Your task to perform on an android device: Search for logitech g pro on walmart, select the first entry, add it to the cart, then select checkout. Image 0: 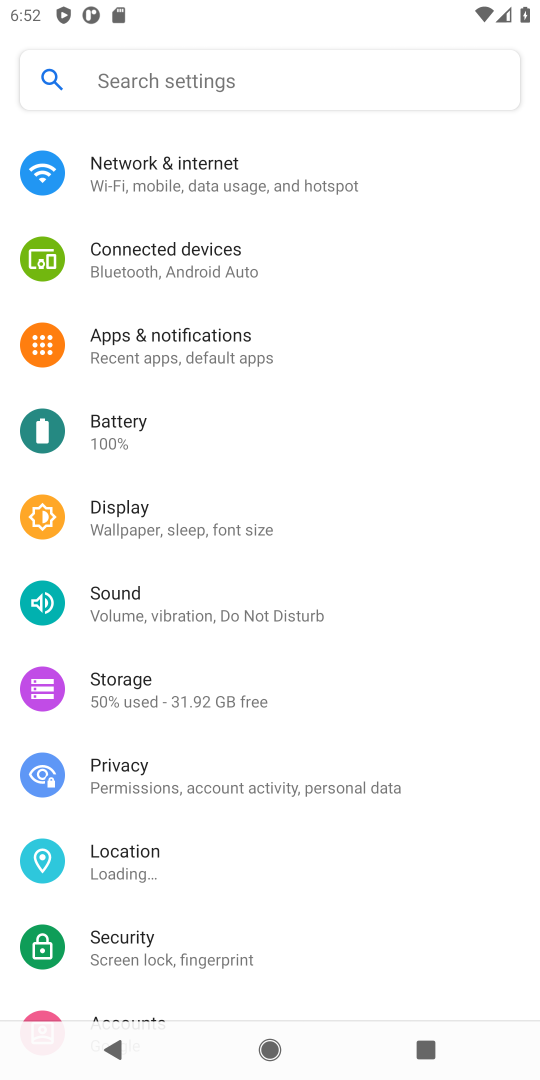
Step 0: press home button
Your task to perform on an android device: Search for logitech g pro on walmart, select the first entry, add it to the cart, then select checkout. Image 1: 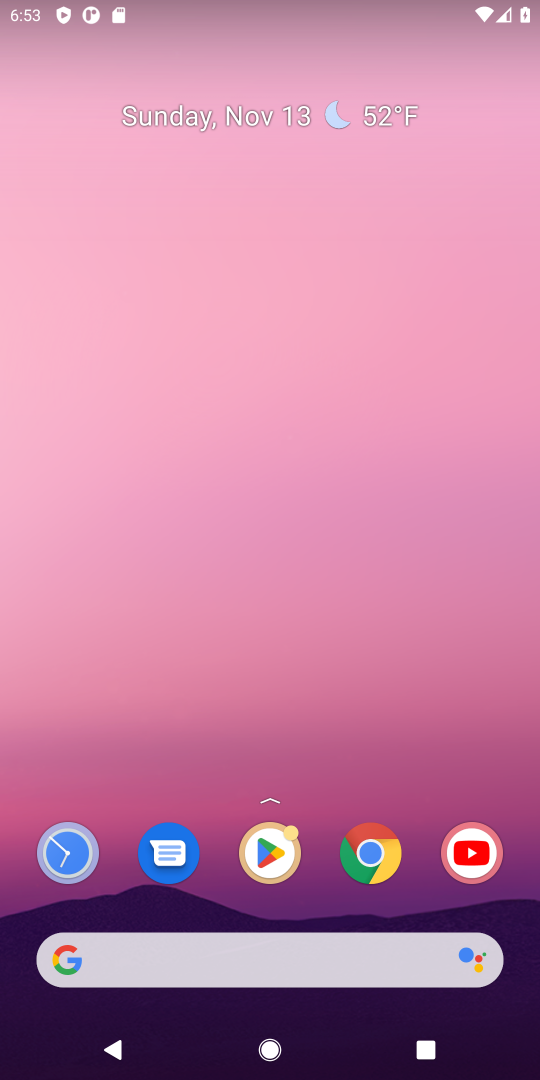
Step 1: click (103, 957)
Your task to perform on an android device: Search for logitech g pro on walmart, select the first entry, add it to the cart, then select checkout. Image 2: 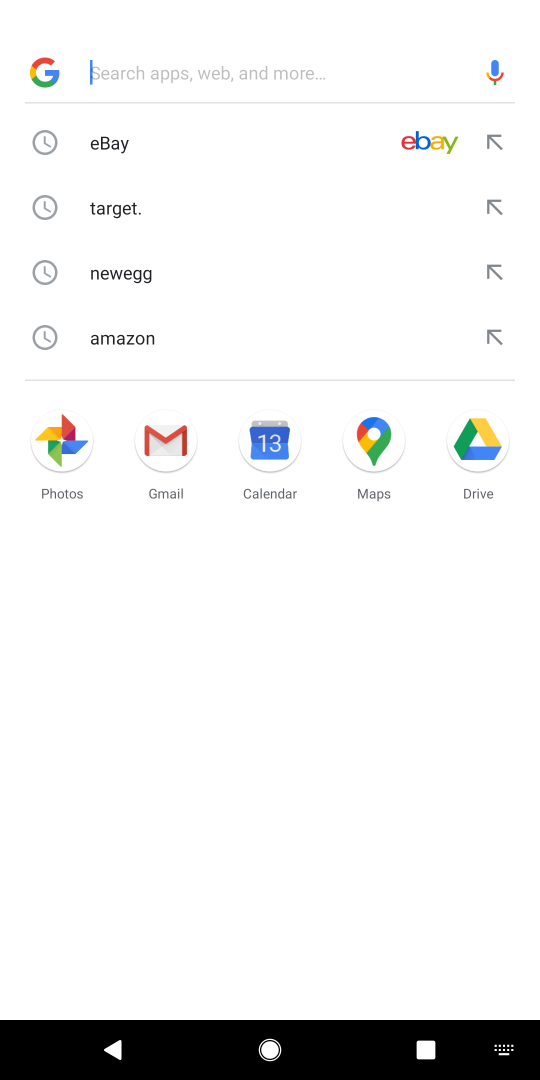
Step 2: type "walmart"
Your task to perform on an android device: Search for logitech g pro on walmart, select the first entry, add it to the cart, then select checkout. Image 3: 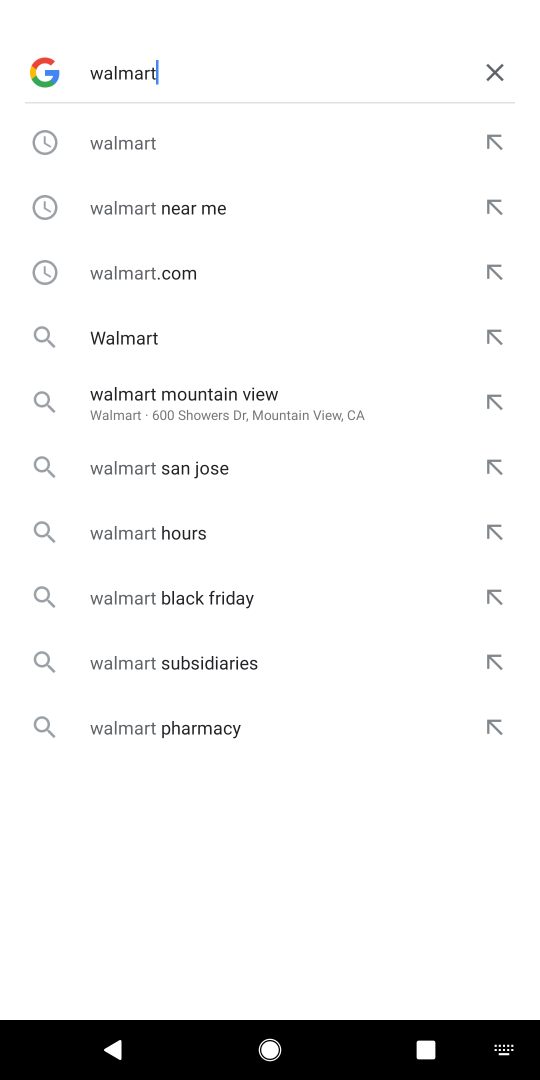
Step 3: press enter
Your task to perform on an android device: Search for logitech g pro on walmart, select the first entry, add it to the cart, then select checkout. Image 4: 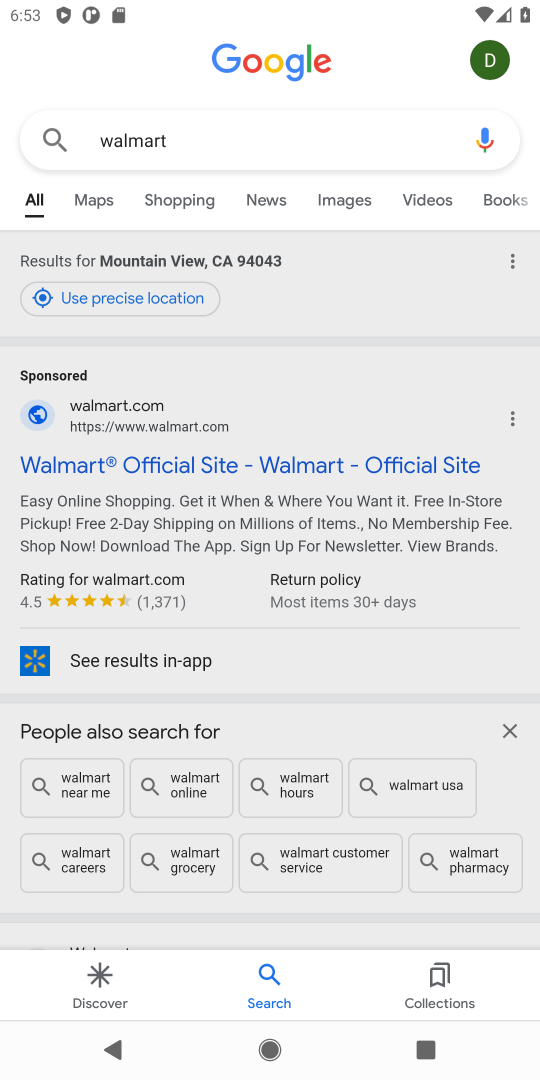
Step 4: click (154, 460)
Your task to perform on an android device: Search for logitech g pro on walmart, select the first entry, add it to the cart, then select checkout. Image 5: 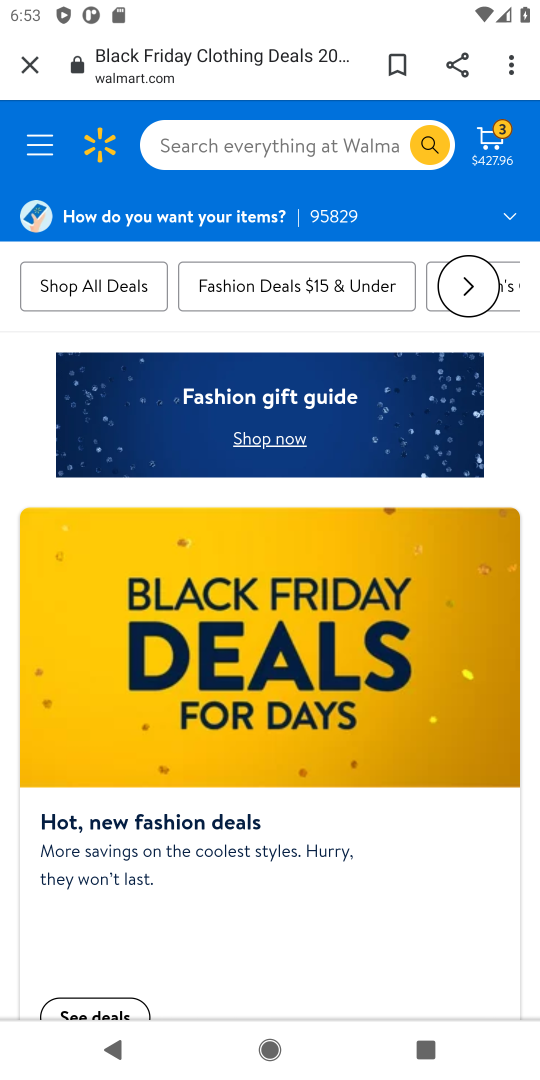
Step 5: click (186, 145)
Your task to perform on an android device: Search for logitech g pro on walmart, select the first entry, add it to the cart, then select checkout. Image 6: 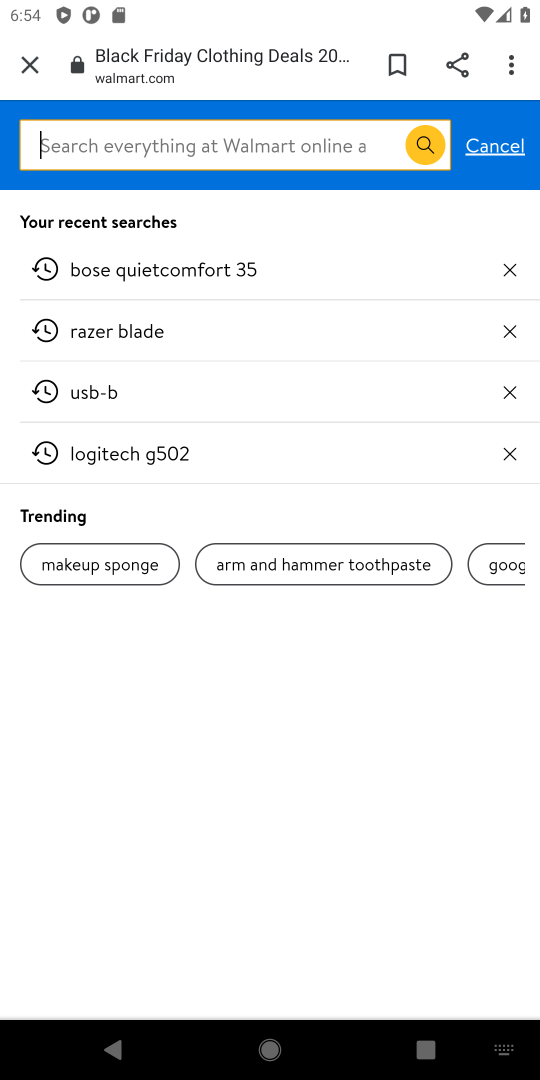
Step 6: press enter
Your task to perform on an android device: Search for logitech g pro on walmart, select the first entry, add it to the cart, then select checkout. Image 7: 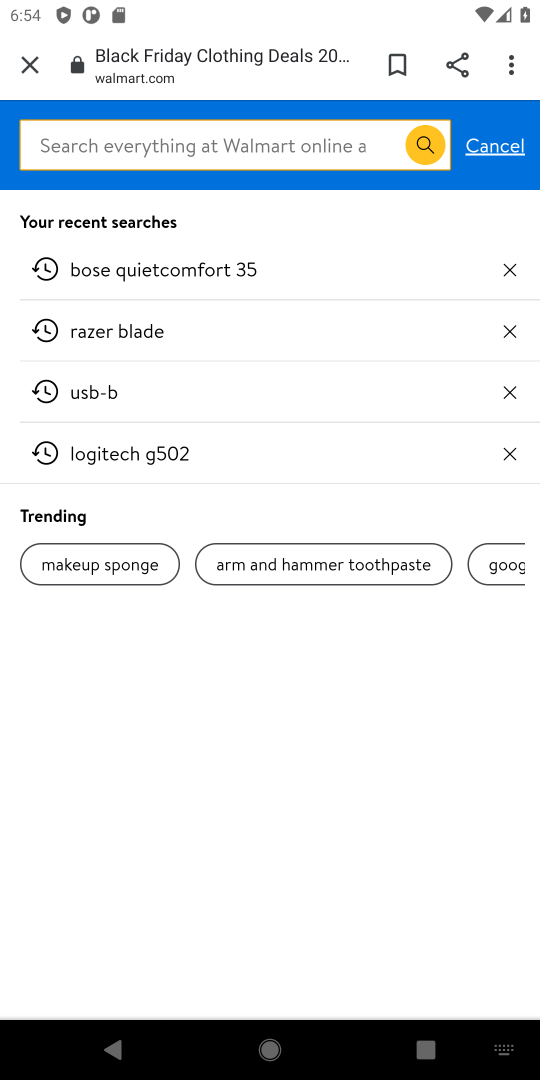
Step 7: type "logitech g pro "
Your task to perform on an android device: Search for logitech g pro on walmart, select the first entry, add it to the cart, then select checkout. Image 8: 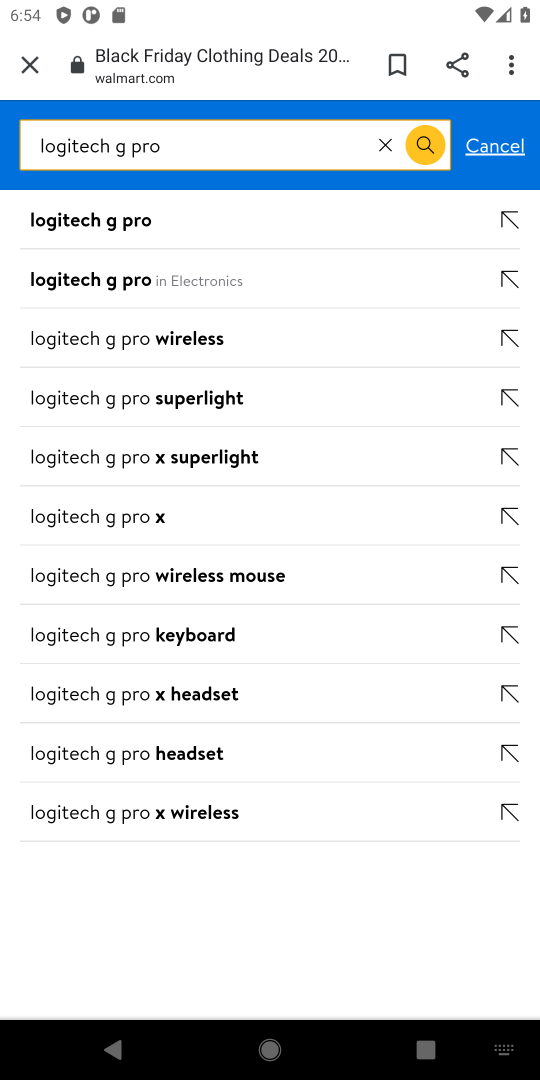
Step 8: press enter
Your task to perform on an android device: Search for logitech g pro on walmart, select the first entry, add it to the cart, then select checkout. Image 9: 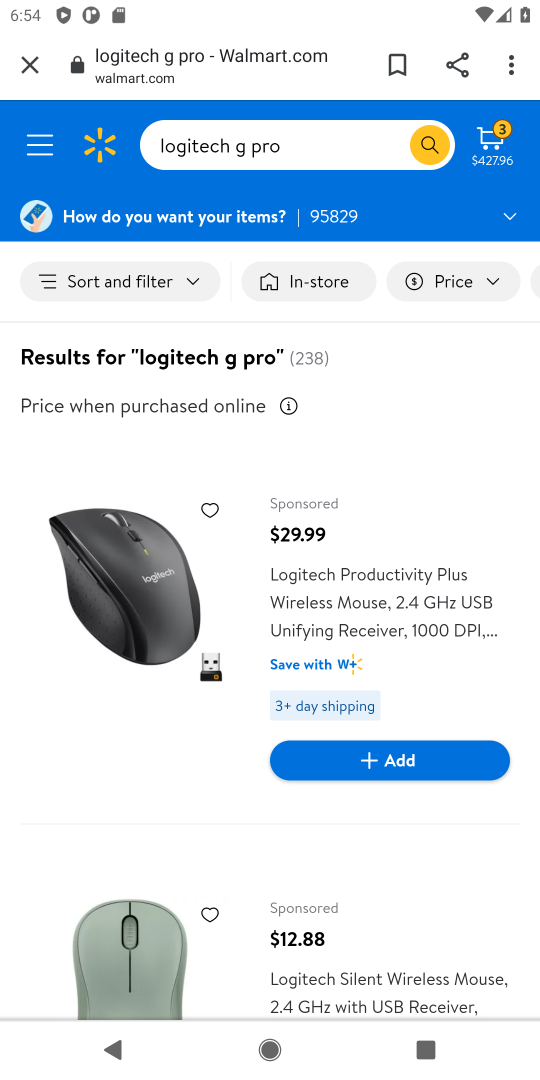
Step 9: drag from (370, 890) to (398, 602)
Your task to perform on an android device: Search for logitech g pro on walmart, select the first entry, add it to the cart, then select checkout. Image 10: 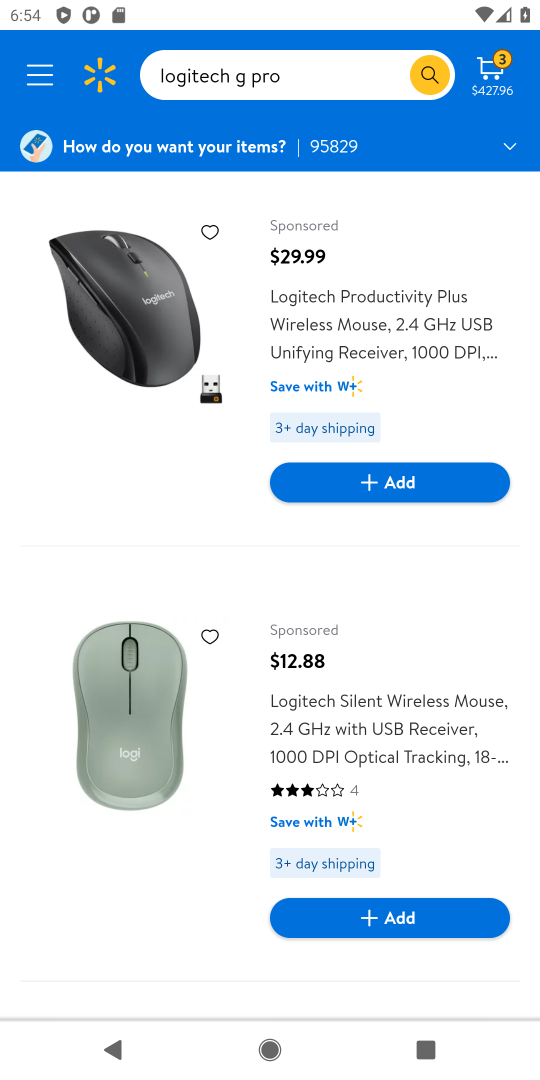
Step 10: drag from (393, 797) to (401, 534)
Your task to perform on an android device: Search for logitech g pro on walmart, select the first entry, add it to the cart, then select checkout. Image 11: 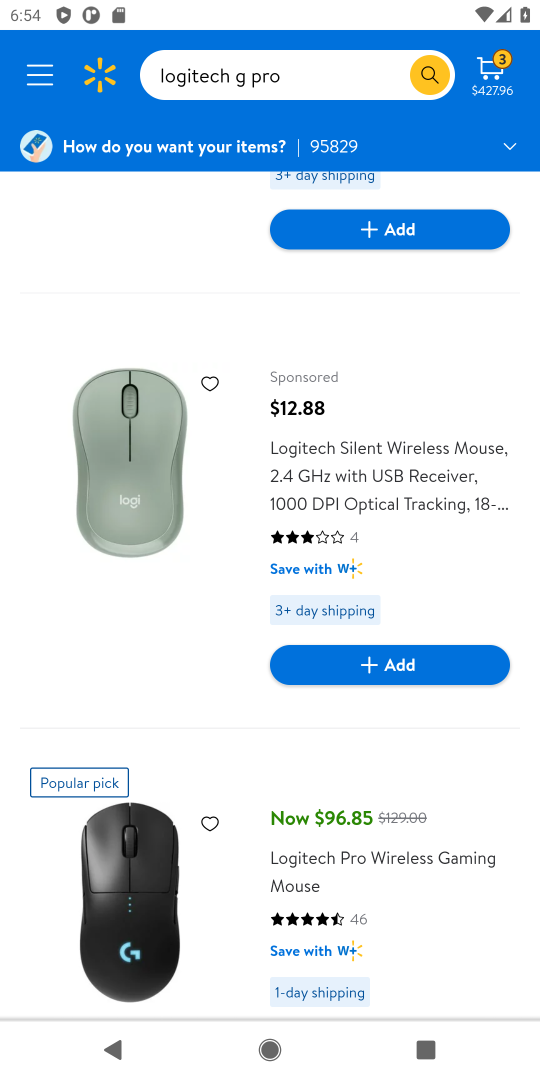
Step 11: drag from (376, 884) to (395, 465)
Your task to perform on an android device: Search for logitech g pro on walmart, select the first entry, add it to the cart, then select checkout. Image 12: 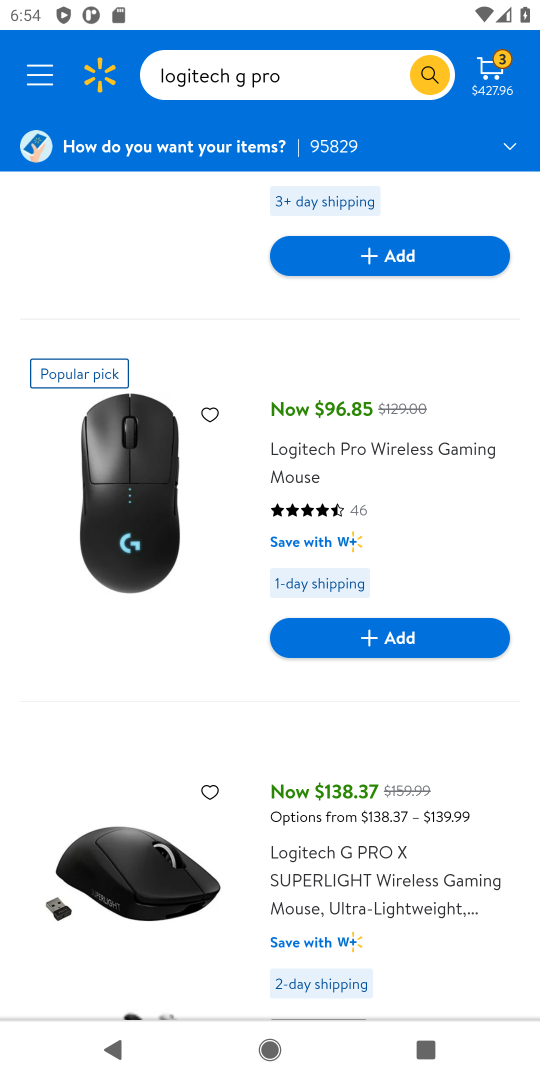
Step 12: click (377, 644)
Your task to perform on an android device: Search for logitech g pro on walmart, select the first entry, add it to the cart, then select checkout. Image 13: 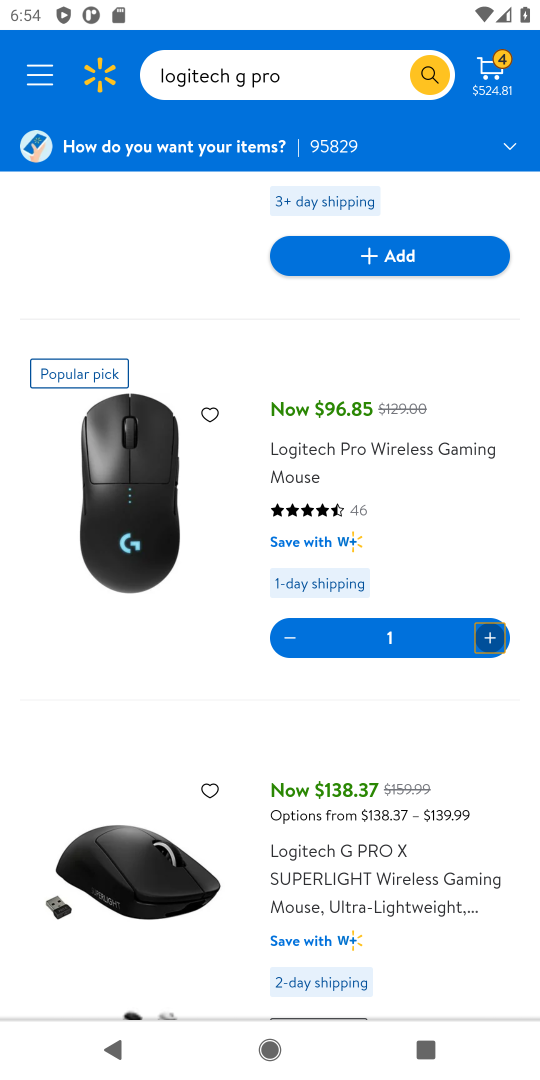
Step 13: click (499, 60)
Your task to perform on an android device: Search for logitech g pro on walmart, select the first entry, add it to the cart, then select checkout. Image 14: 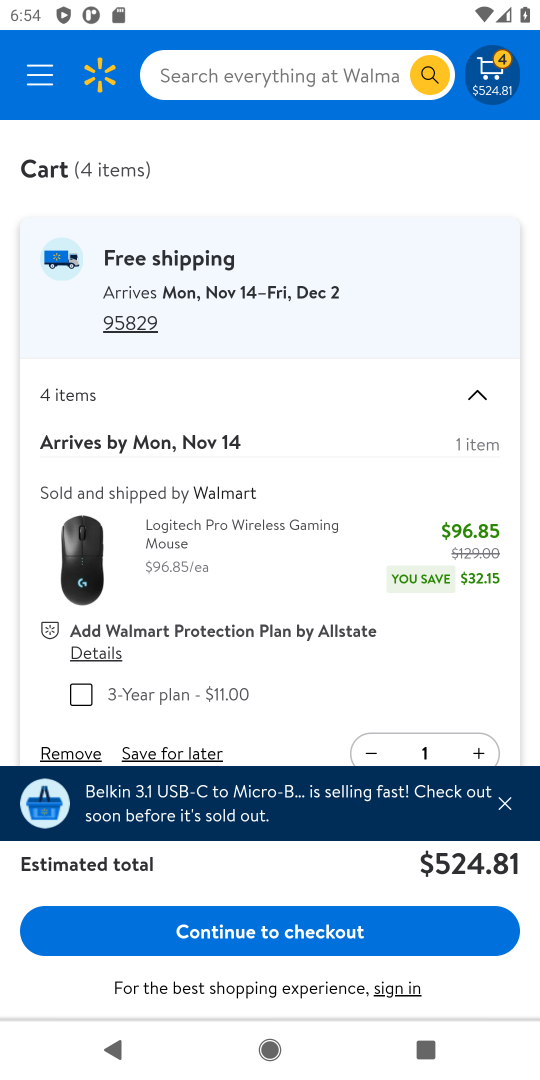
Step 14: click (269, 942)
Your task to perform on an android device: Search for logitech g pro on walmart, select the first entry, add it to the cart, then select checkout. Image 15: 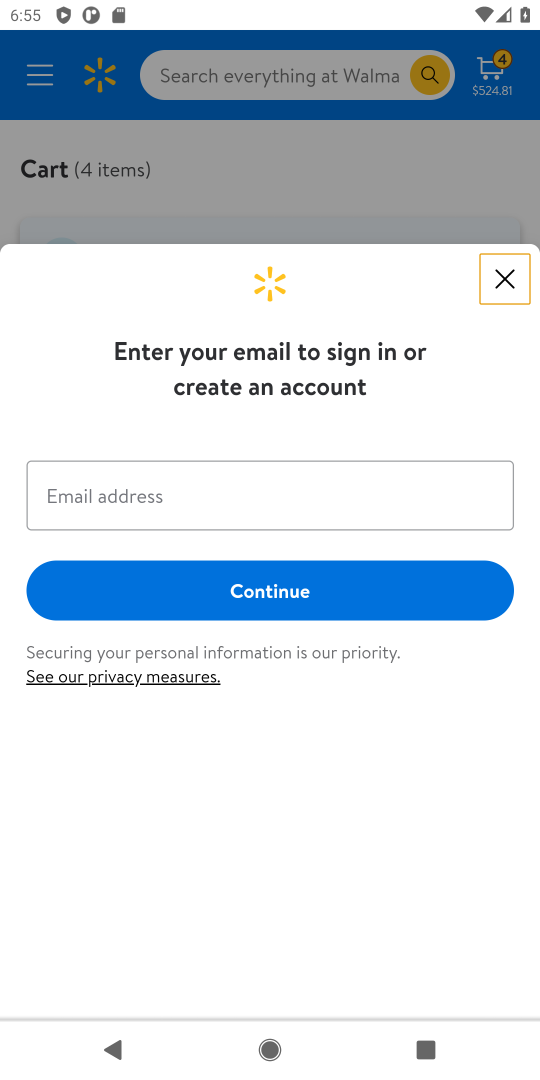
Step 15: task complete